Your task to perform on an android device: toggle pop-ups in chrome Image 0: 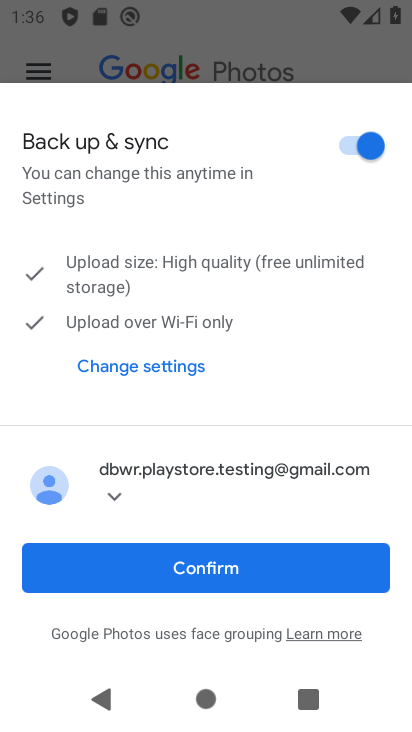
Step 0: press home button
Your task to perform on an android device: toggle pop-ups in chrome Image 1: 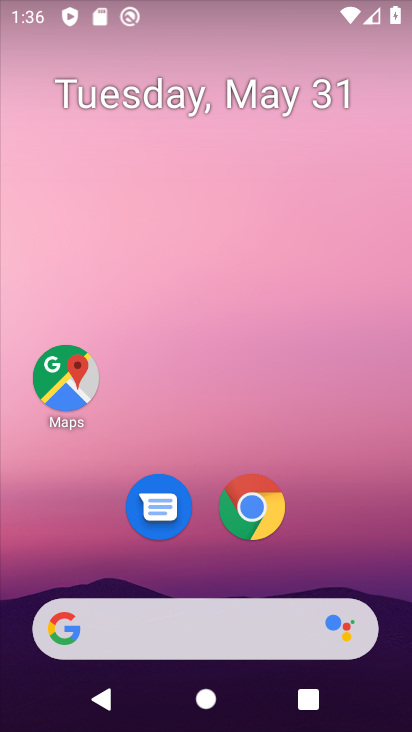
Step 1: click (262, 500)
Your task to perform on an android device: toggle pop-ups in chrome Image 2: 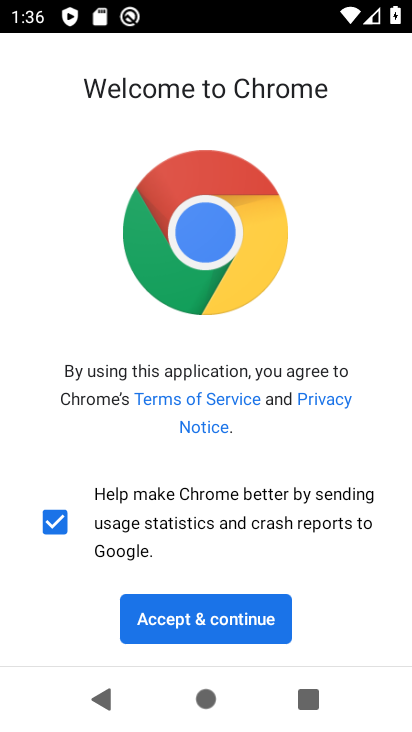
Step 2: click (209, 609)
Your task to perform on an android device: toggle pop-ups in chrome Image 3: 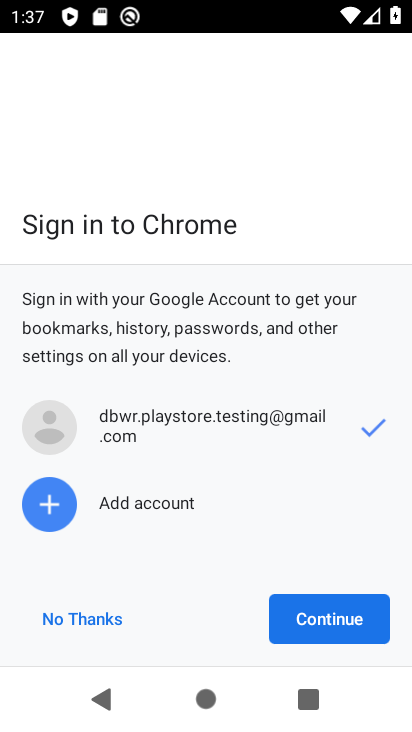
Step 3: click (364, 602)
Your task to perform on an android device: toggle pop-ups in chrome Image 4: 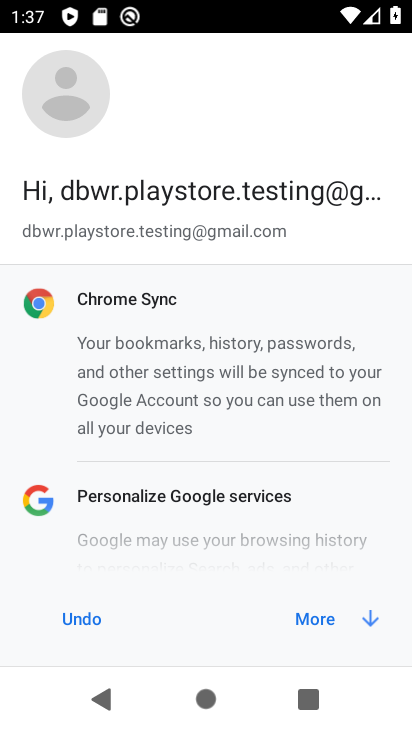
Step 4: click (323, 614)
Your task to perform on an android device: toggle pop-ups in chrome Image 5: 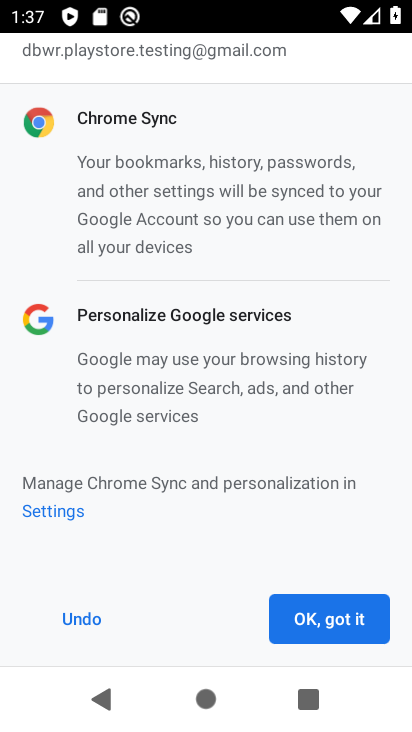
Step 5: click (323, 614)
Your task to perform on an android device: toggle pop-ups in chrome Image 6: 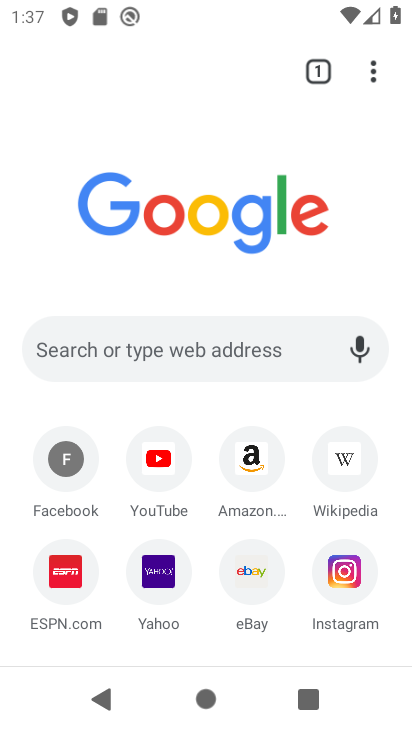
Step 6: click (385, 64)
Your task to perform on an android device: toggle pop-ups in chrome Image 7: 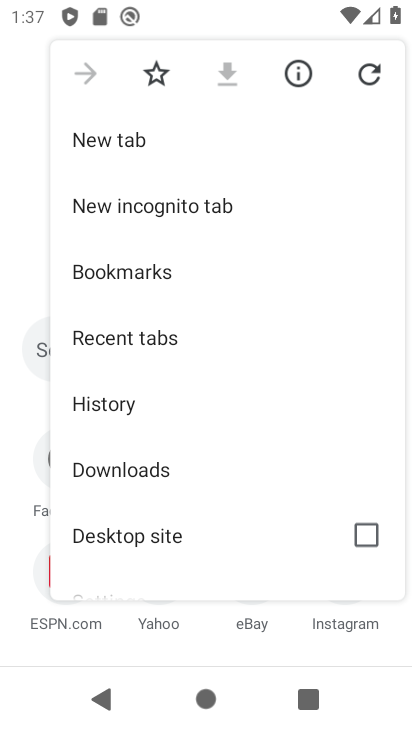
Step 7: drag from (119, 579) to (231, 229)
Your task to perform on an android device: toggle pop-ups in chrome Image 8: 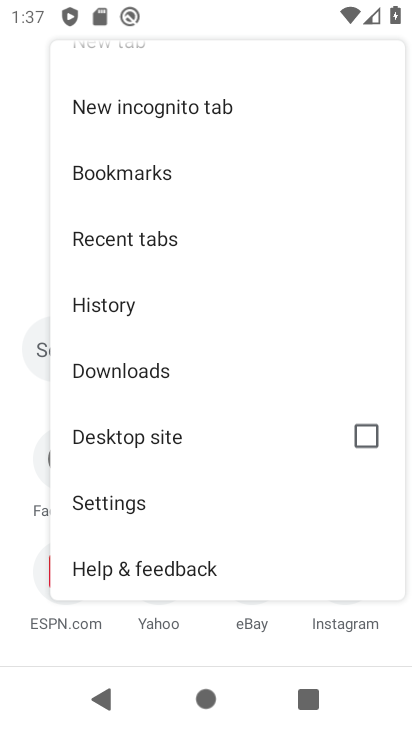
Step 8: click (138, 501)
Your task to perform on an android device: toggle pop-ups in chrome Image 9: 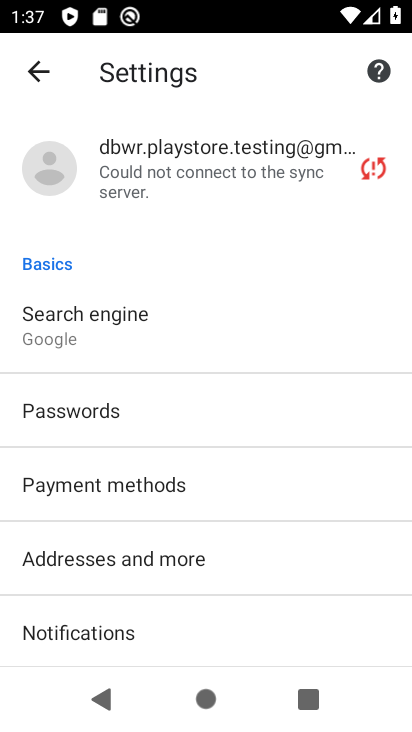
Step 9: drag from (180, 286) to (184, 194)
Your task to perform on an android device: toggle pop-ups in chrome Image 10: 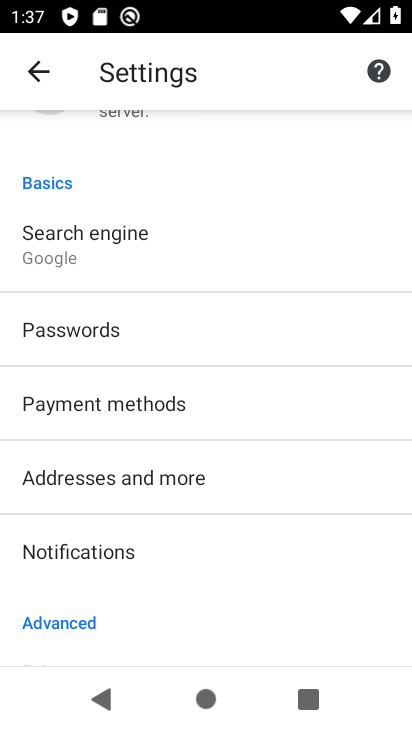
Step 10: drag from (134, 612) to (204, 301)
Your task to perform on an android device: toggle pop-ups in chrome Image 11: 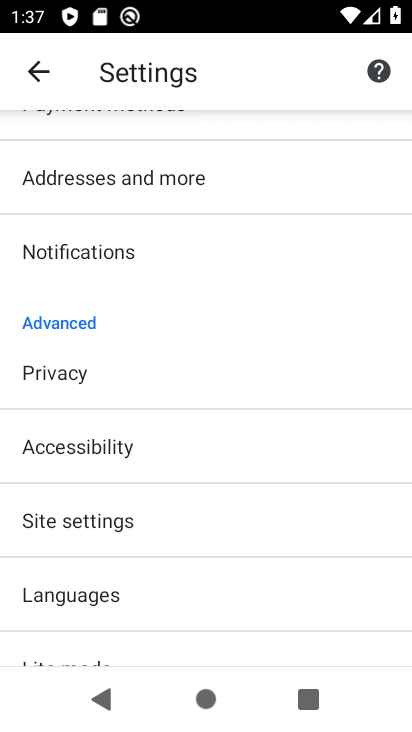
Step 11: click (178, 497)
Your task to perform on an android device: toggle pop-ups in chrome Image 12: 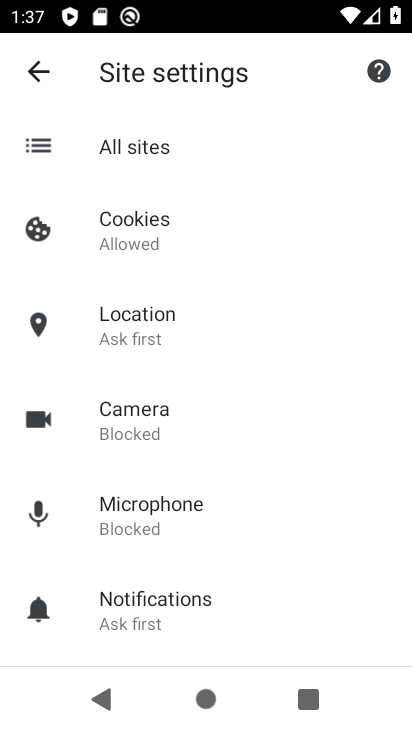
Step 12: drag from (105, 604) to (219, 232)
Your task to perform on an android device: toggle pop-ups in chrome Image 13: 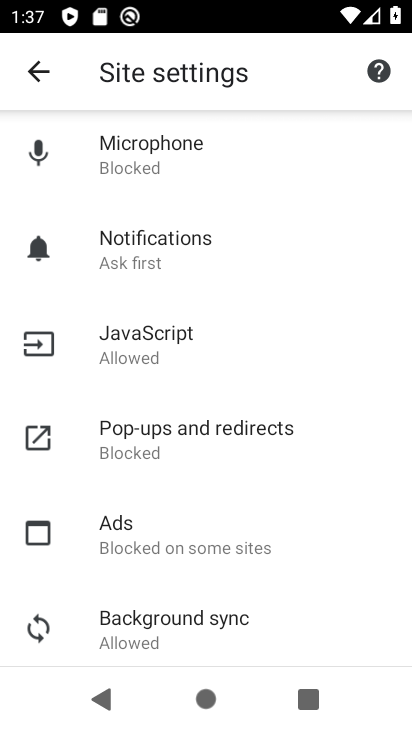
Step 13: click (166, 427)
Your task to perform on an android device: toggle pop-ups in chrome Image 14: 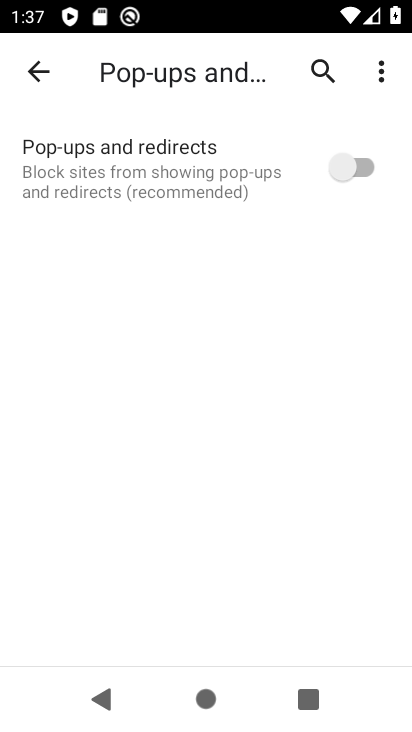
Step 14: click (368, 172)
Your task to perform on an android device: toggle pop-ups in chrome Image 15: 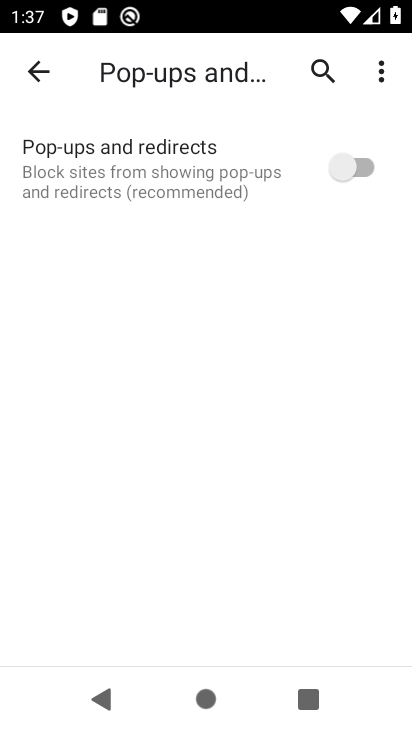
Step 15: click (368, 172)
Your task to perform on an android device: toggle pop-ups in chrome Image 16: 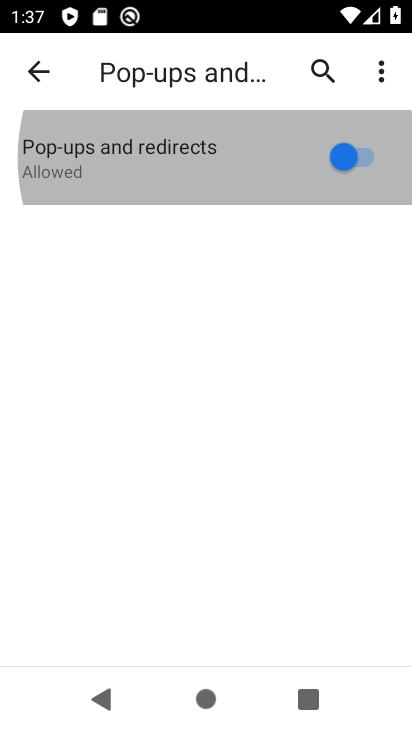
Step 16: click (368, 172)
Your task to perform on an android device: toggle pop-ups in chrome Image 17: 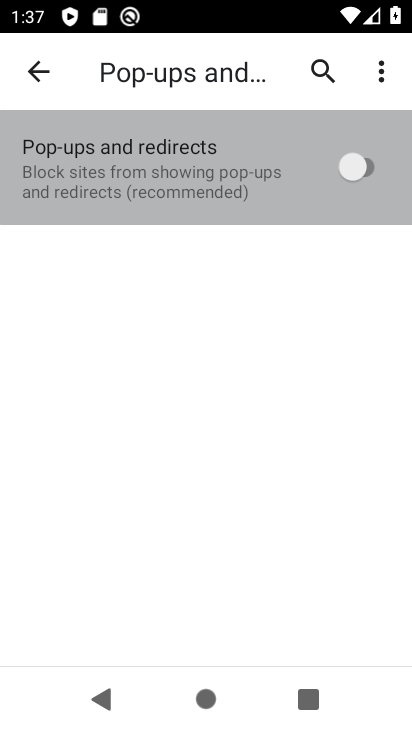
Step 17: click (368, 172)
Your task to perform on an android device: toggle pop-ups in chrome Image 18: 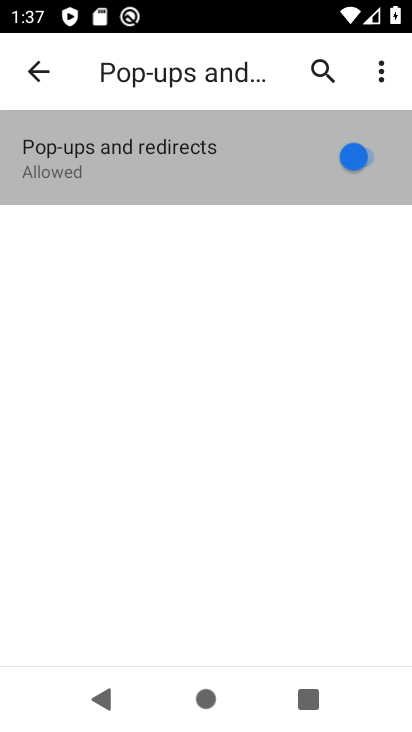
Step 18: click (368, 172)
Your task to perform on an android device: toggle pop-ups in chrome Image 19: 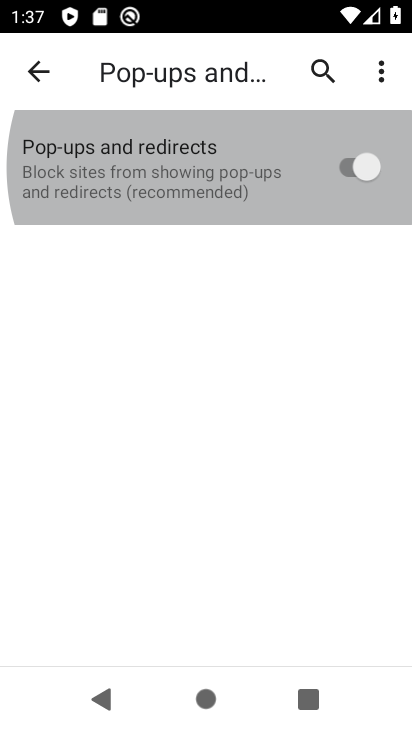
Step 19: click (368, 172)
Your task to perform on an android device: toggle pop-ups in chrome Image 20: 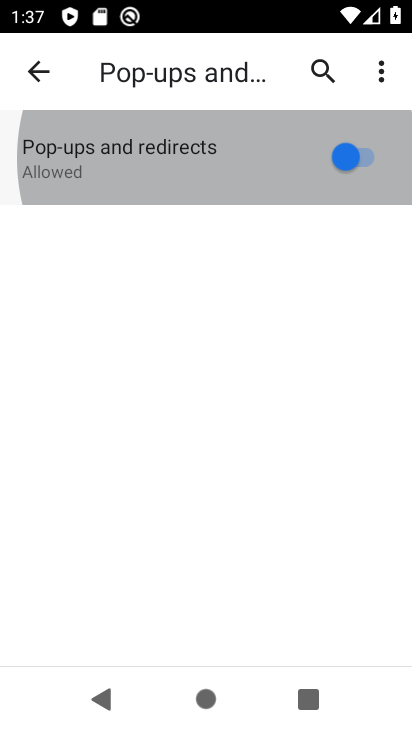
Step 20: click (368, 172)
Your task to perform on an android device: toggle pop-ups in chrome Image 21: 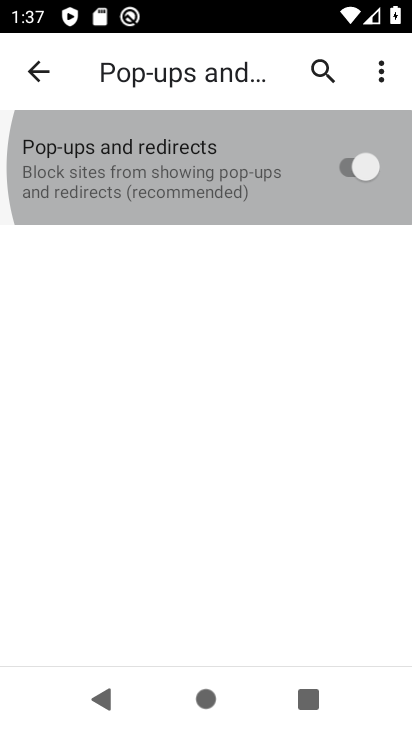
Step 21: click (368, 172)
Your task to perform on an android device: toggle pop-ups in chrome Image 22: 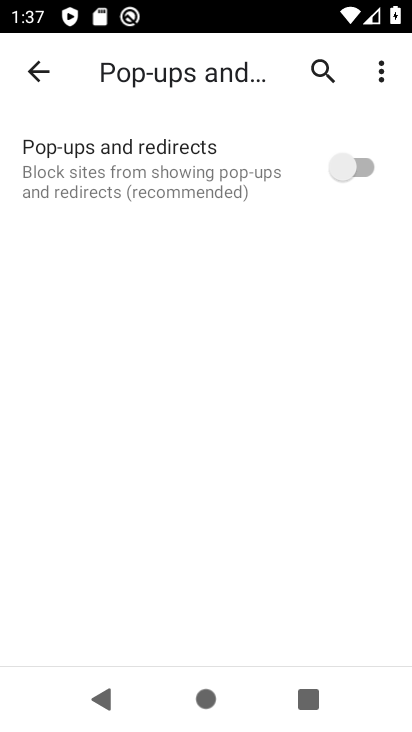
Step 22: task complete